Your task to perform on an android device: toggle data saver in the chrome app Image 0: 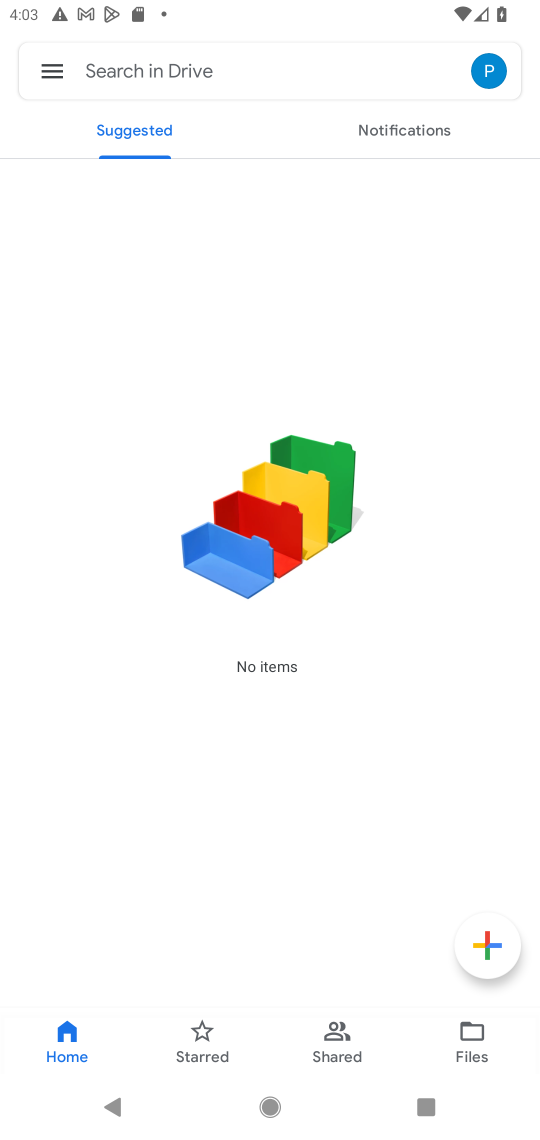
Step 0: press home button
Your task to perform on an android device: toggle data saver in the chrome app Image 1: 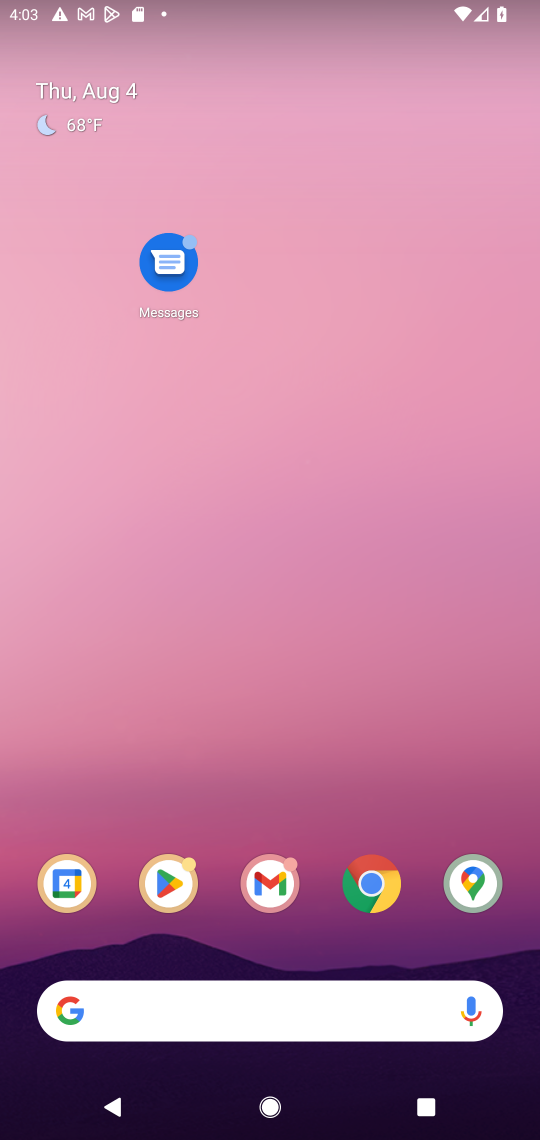
Step 1: drag from (309, 967) to (312, 207)
Your task to perform on an android device: toggle data saver in the chrome app Image 2: 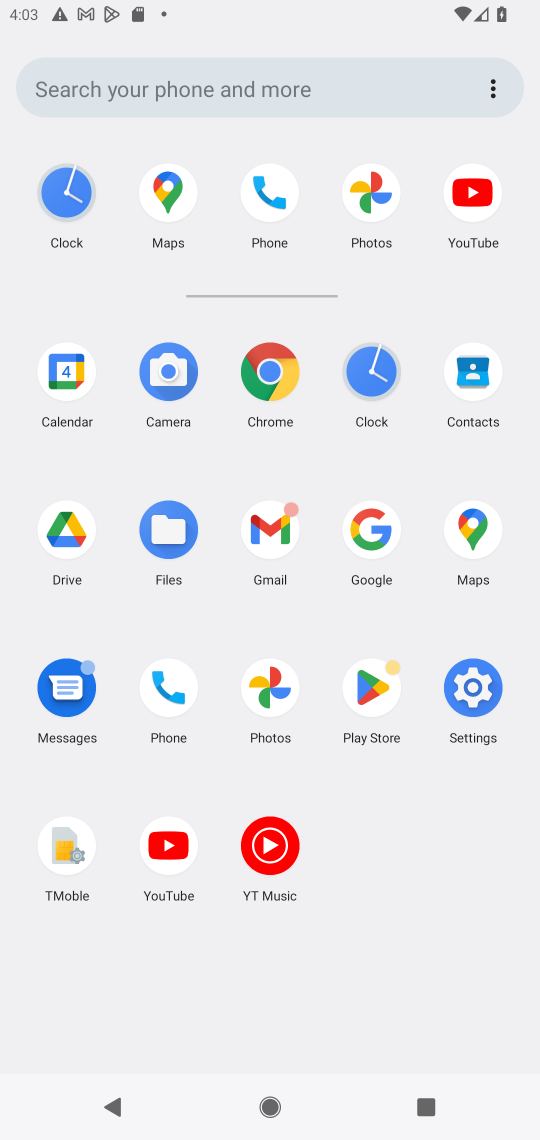
Step 2: click (269, 373)
Your task to perform on an android device: toggle data saver in the chrome app Image 3: 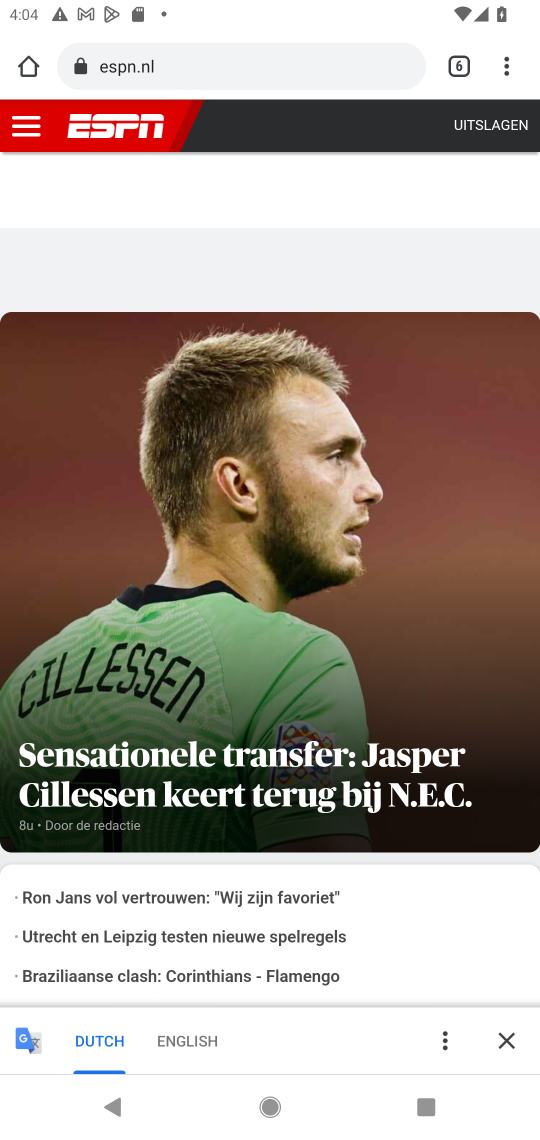
Step 3: click (505, 71)
Your task to perform on an android device: toggle data saver in the chrome app Image 4: 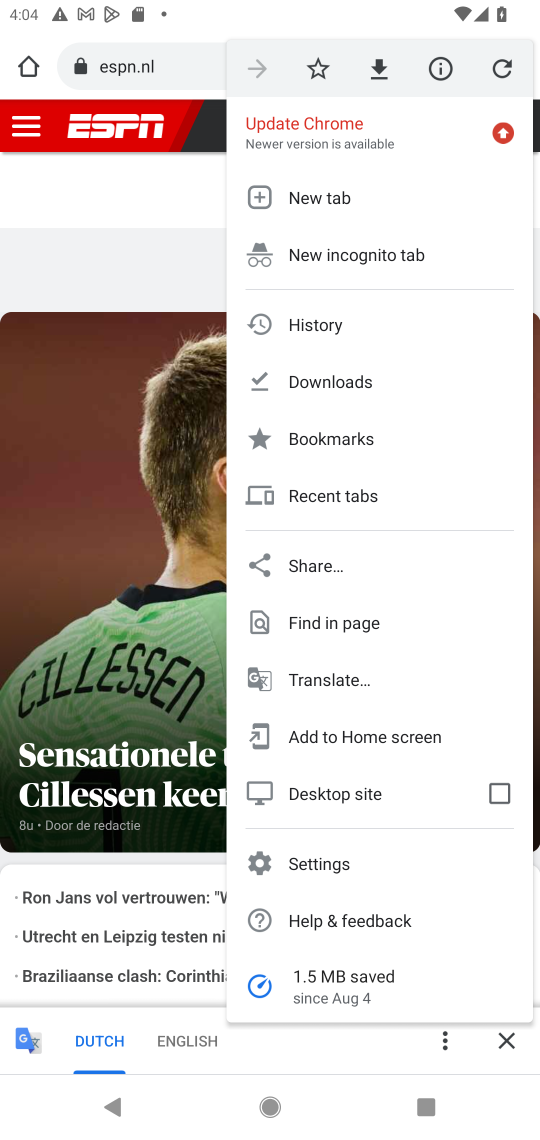
Step 4: click (322, 867)
Your task to perform on an android device: toggle data saver in the chrome app Image 5: 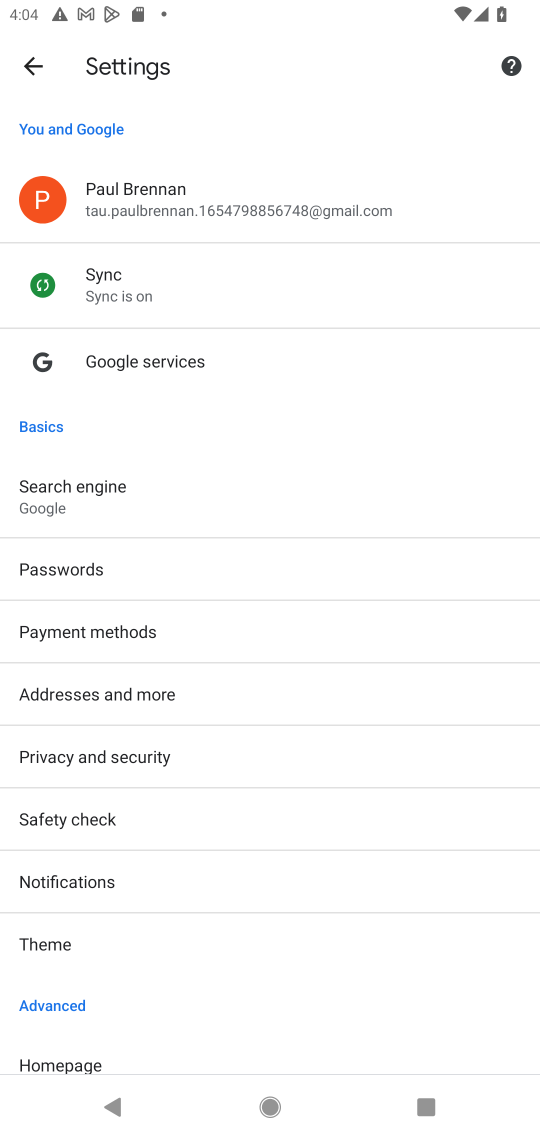
Step 5: drag from (189, 951) to (208, 565)
Your task to perform on an android device: toggle data saver in the chrome app Image 6: 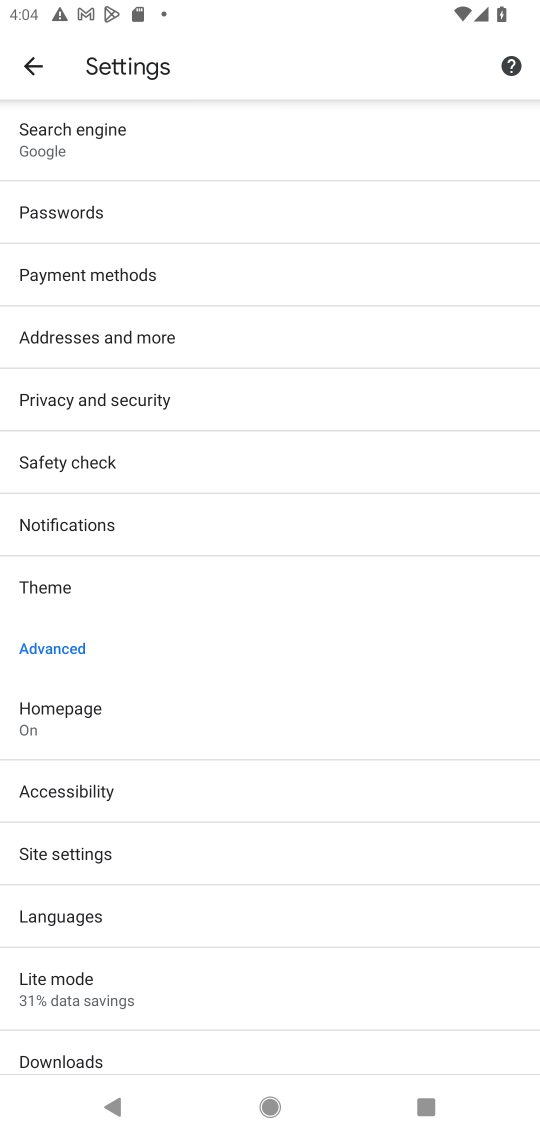
Step 6: click (64, 983)
Your task to perform on an android device: toggle data saver in the chrome app Image 7: 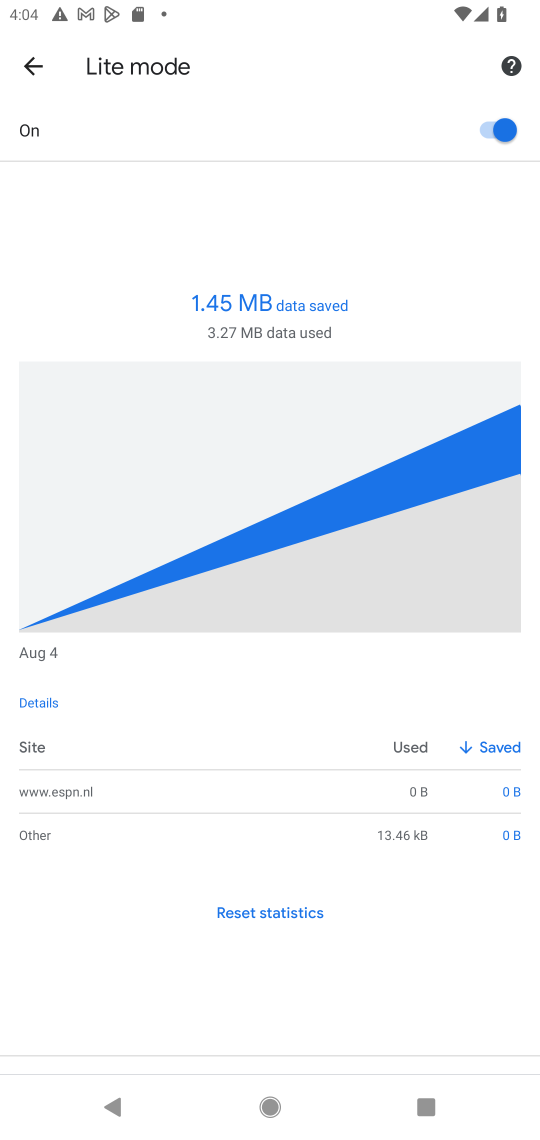
Step 7: click (493, 134)
Your task to perform on an android device: toggle data saver in the chrome app Image 8: 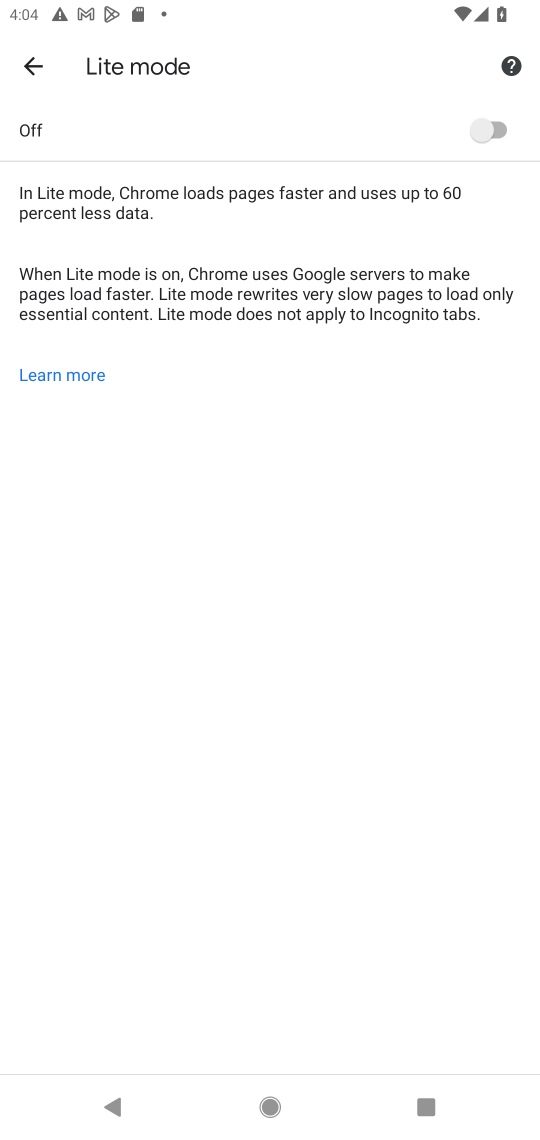
Step 8: task complete